Your task to perform on an android device: What is the recent news? Image 0: 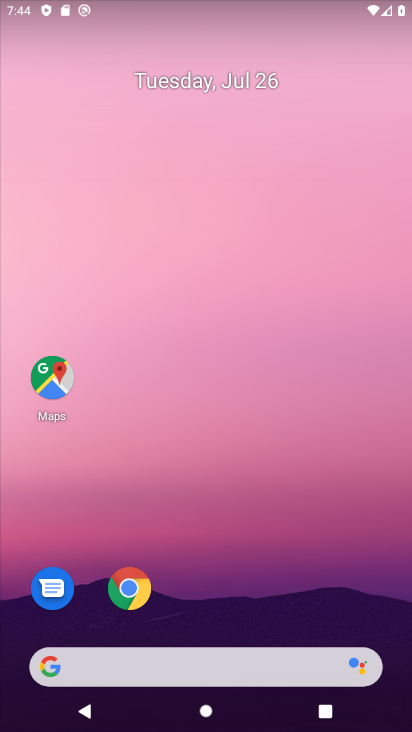
Step 0: drag from (267, 602) to (275, 208)
Your task to perform on an android device: What is the recent news? Image 1: 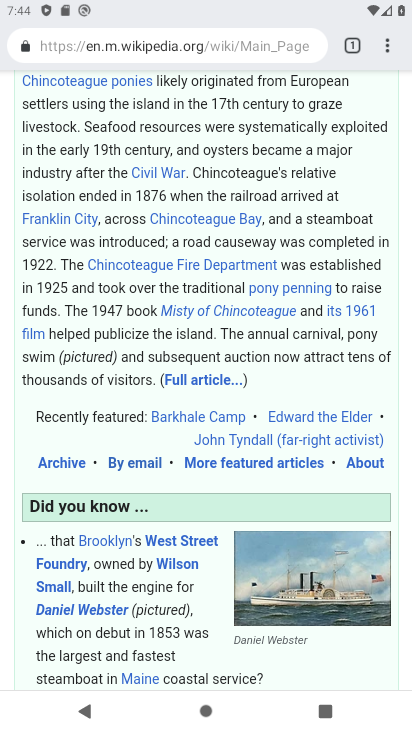
Step 1: click (178, 56)
Your task to perform on an android device: What is the recent news? Image 2: 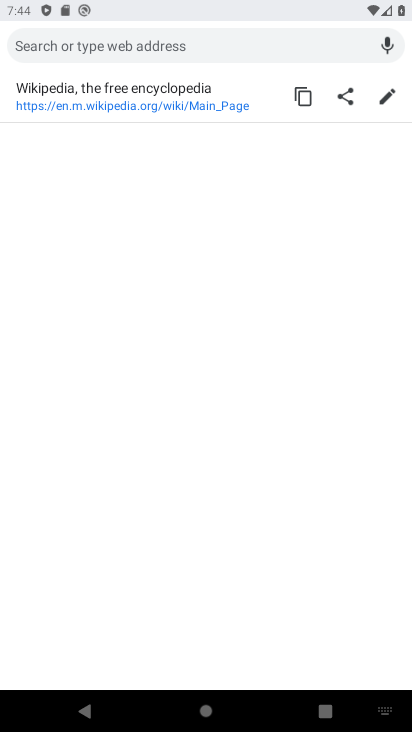
Step 2: type "news"
Your task to perform on an android device: What is the recent news? Image 3: 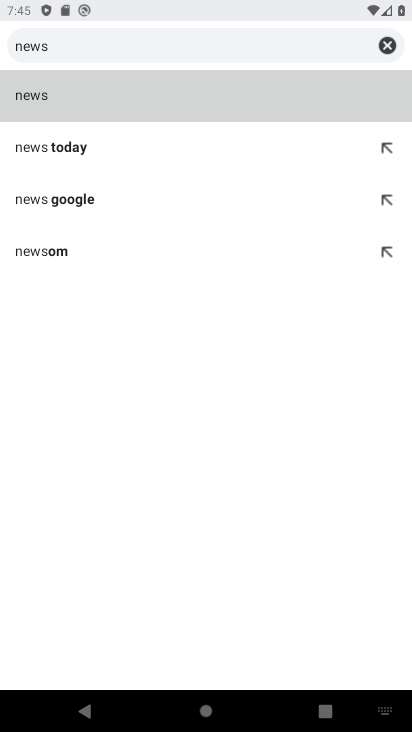
Step 3: click (22, 90)
Your task to perform on an android device: What is the recent news? Image 4: 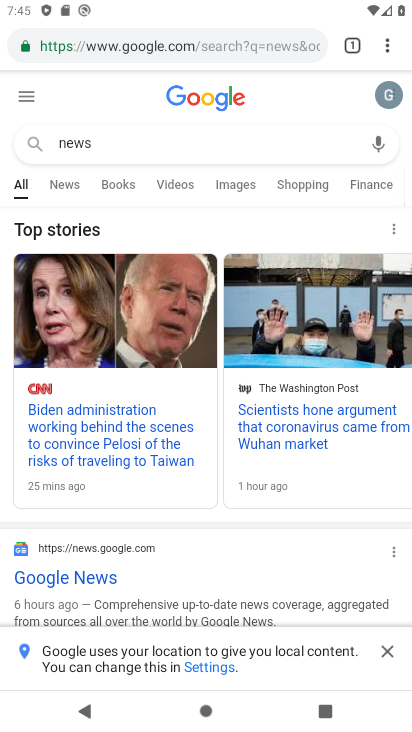
Step 4: click (98, 583)
Your task to perform on an android device: What is the recent news? Image 5: 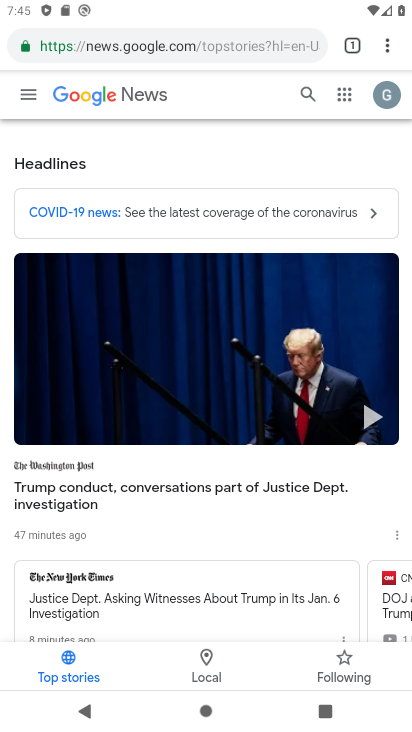
Step 5: task complete